Your task to perform on an android device: open app "McDonald's" Image 0: 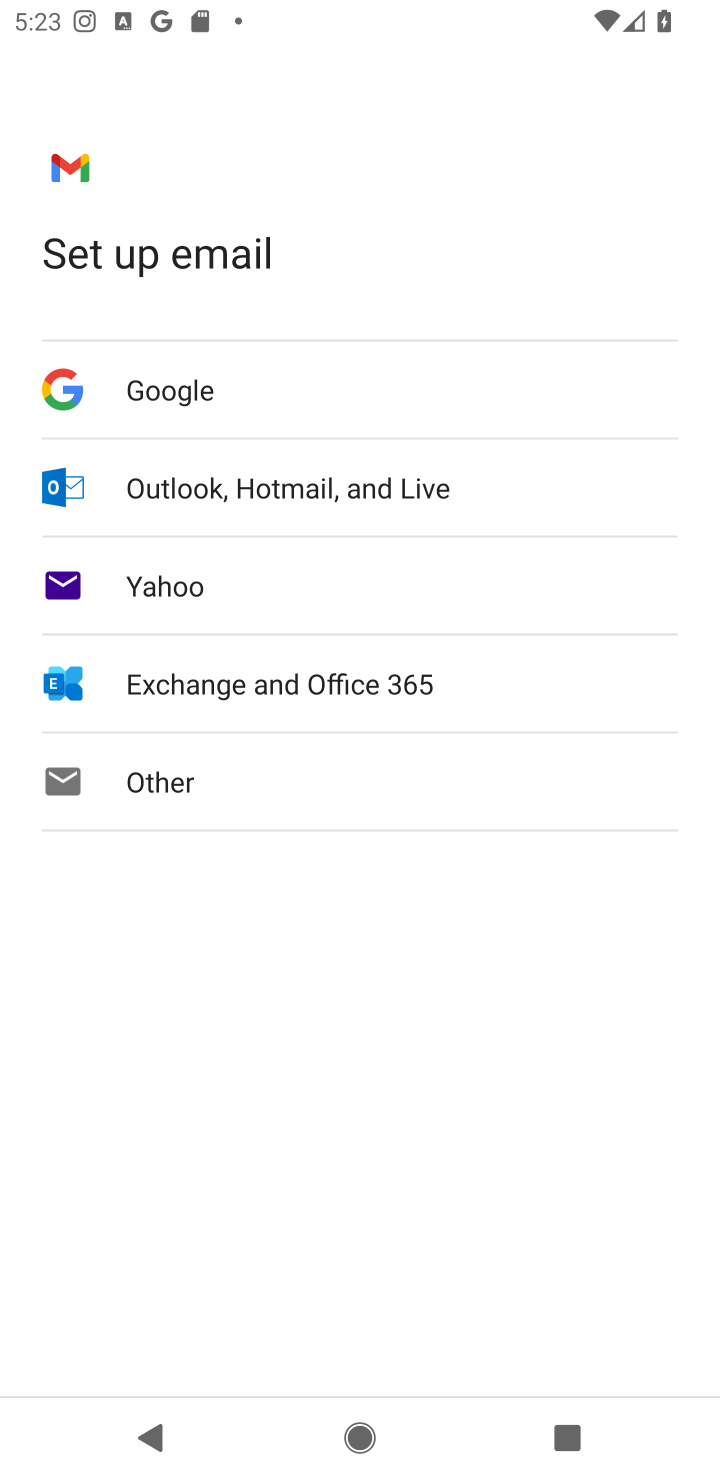
Step 0: press home button
Your task to perform on an android device: open app "McDonald's" Image 1: 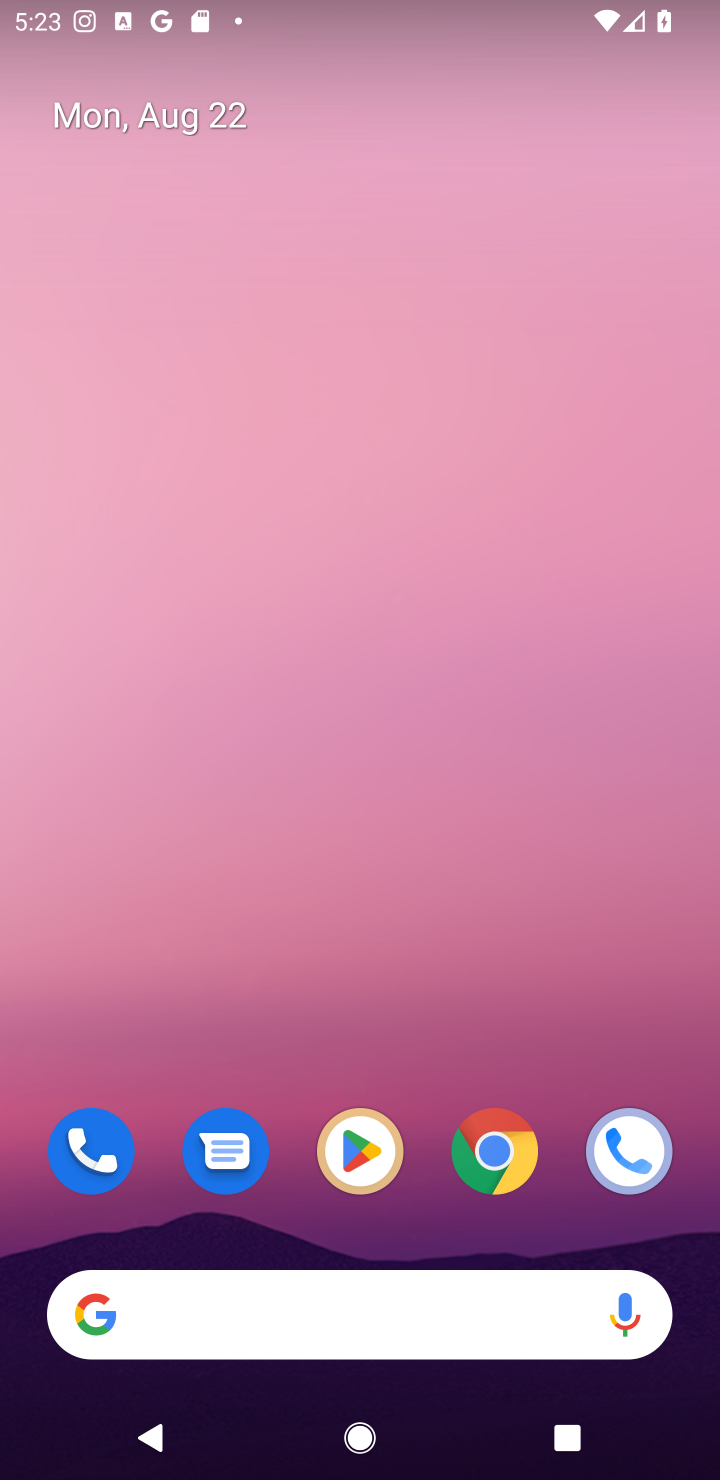
Step 1: click (356, 1152)
Your task to perform on an android device: open app "McDonald's" Image 2: 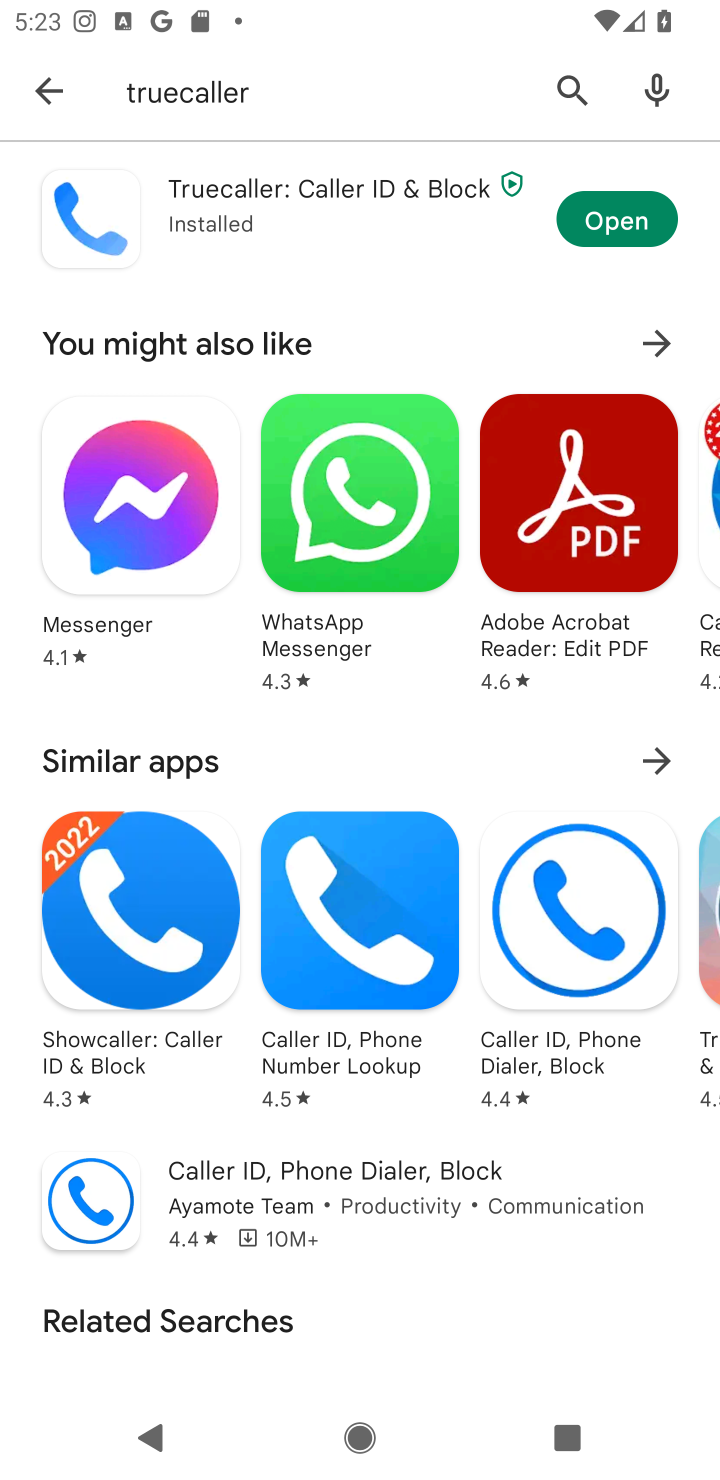
Step 2: click (576, 74)
Your task to perform on an android device: open app "McDonald's" Image 3: 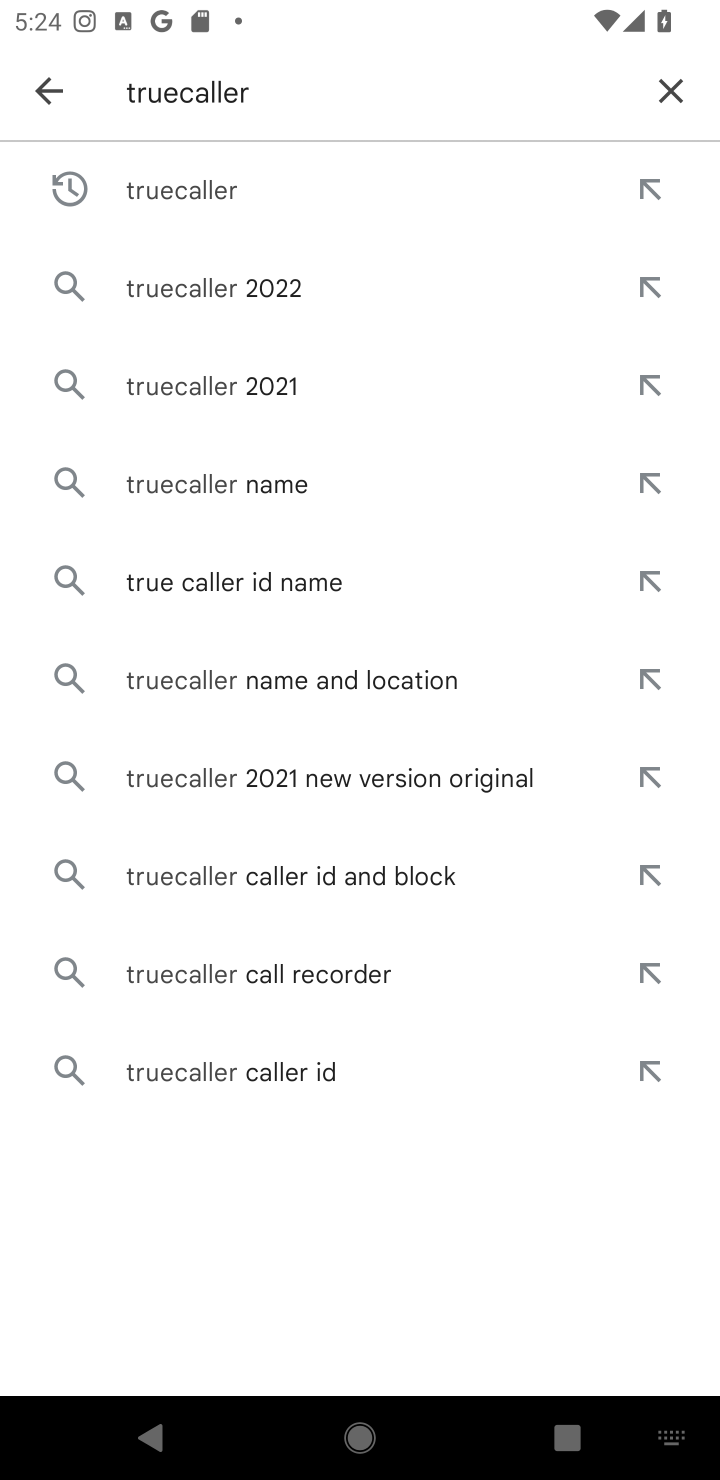
Step 3: click (672, 85)
Your task to perform on an android device: open app "McDonald's" Image 4: 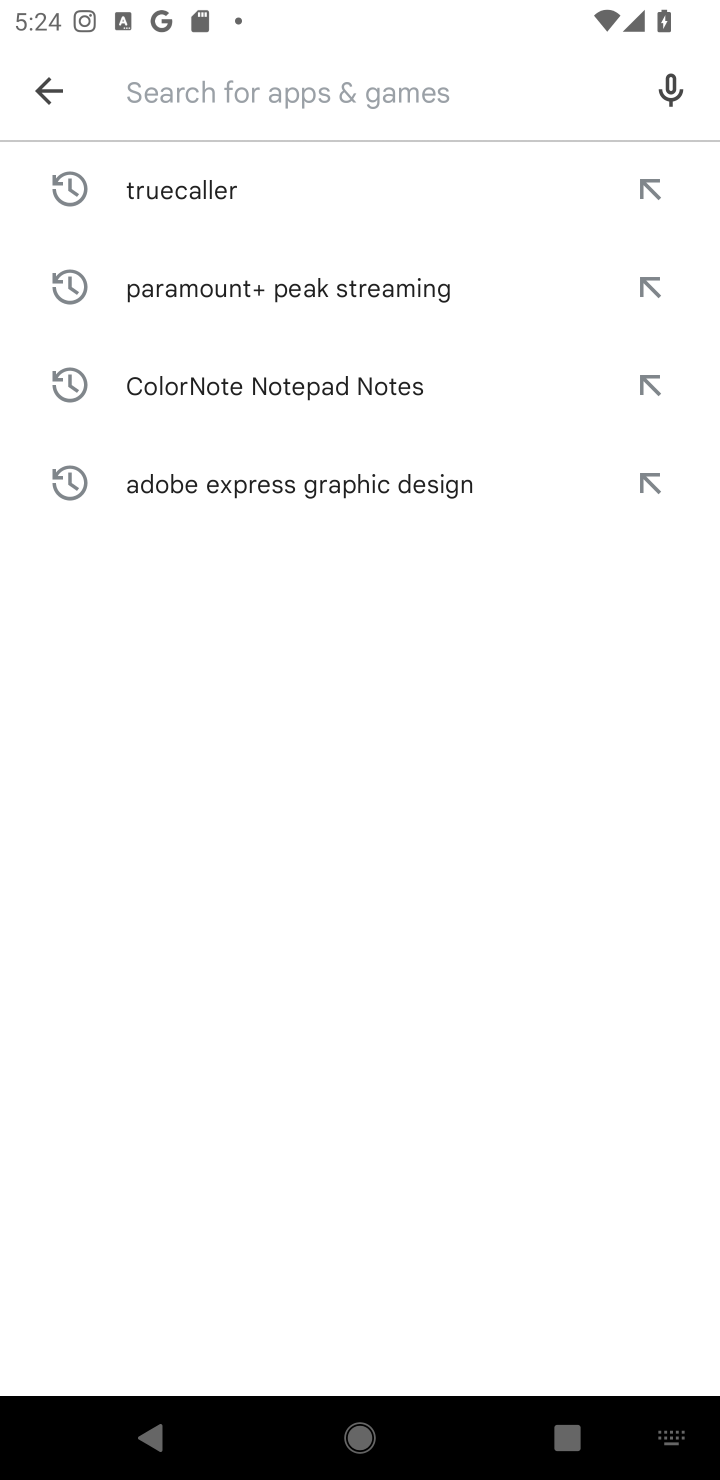
Step 4: type "McDonald's"
Your task to perform on an android device: open app "McDonald's" Image 5: 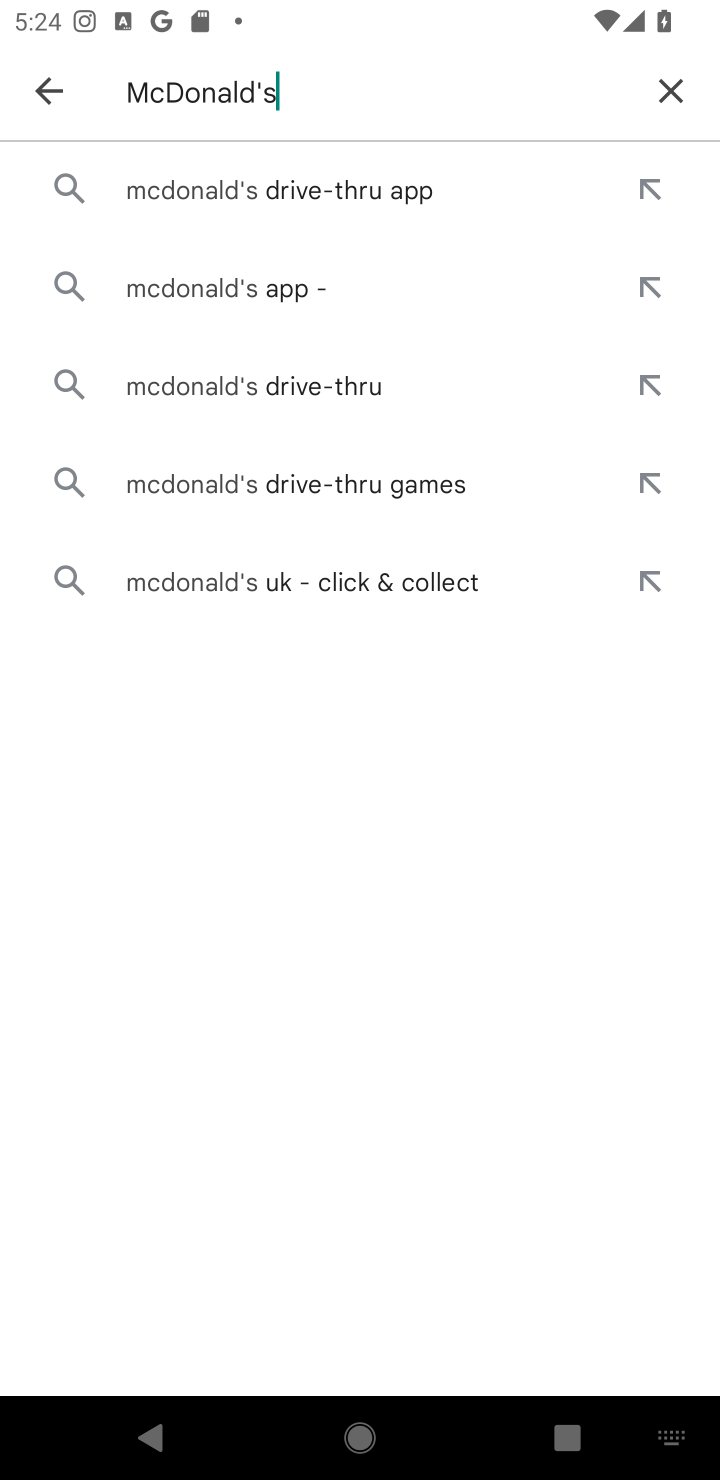
Step 5: click (224, 213)
Your task to perform on an android device: open app "McDonald's" Image 6: 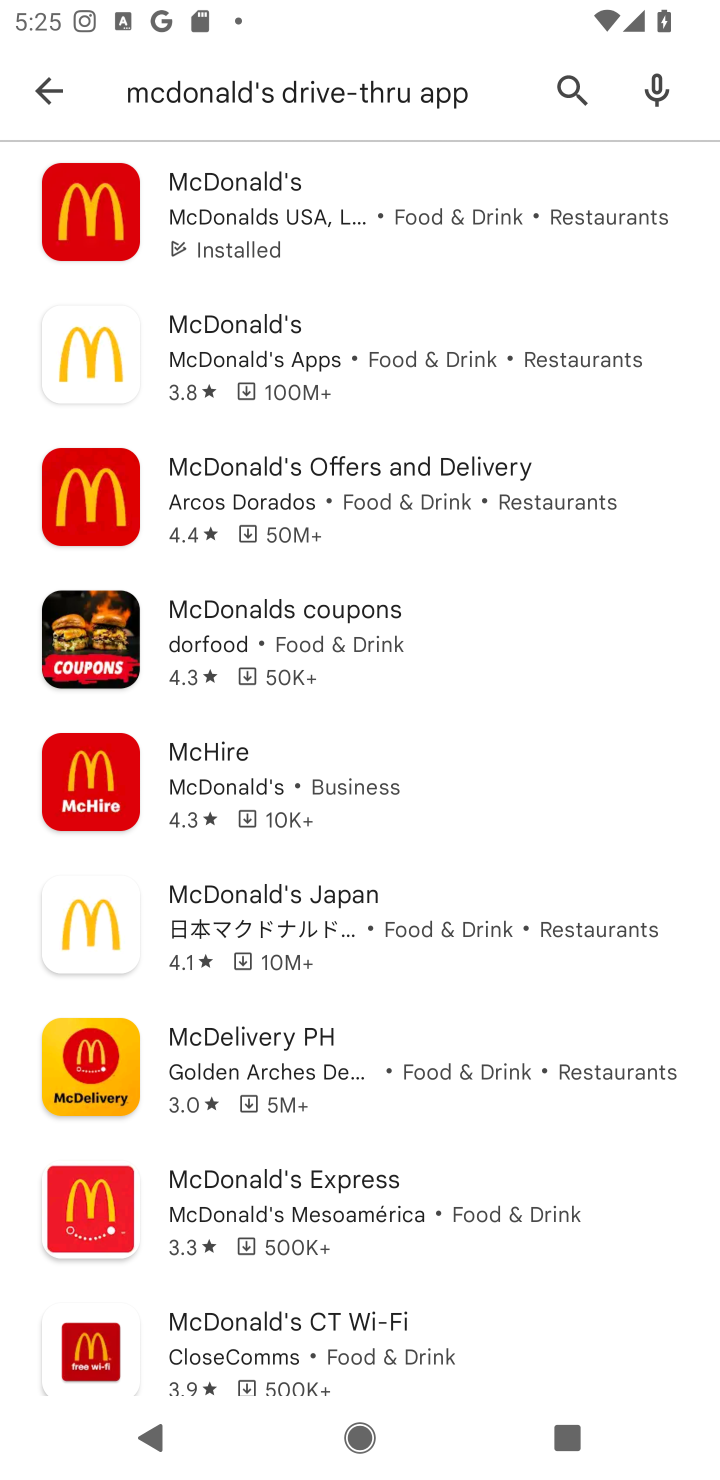
Step 6: click (250, 219)
Your task to perform on an android device: open app "McDonald's" Image 7: 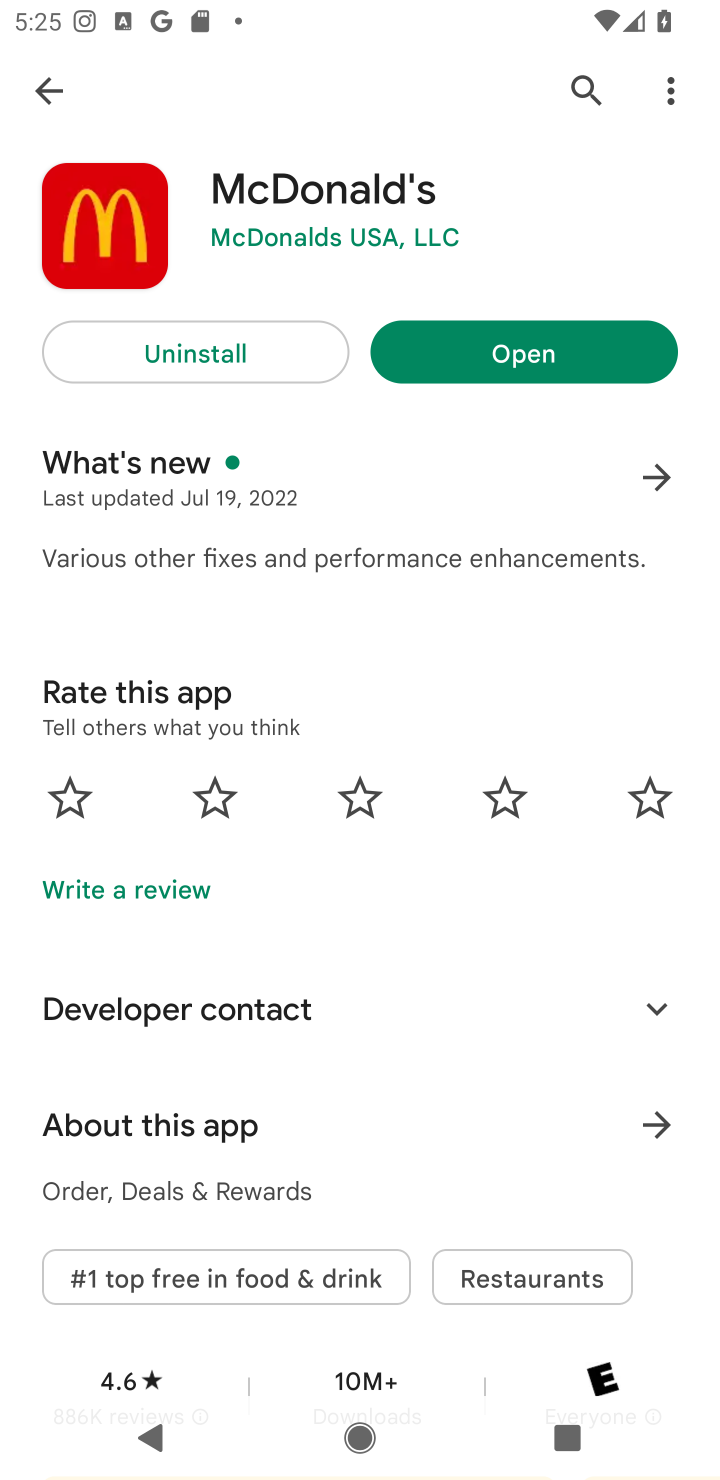
Step 7: click (551, 357)
Your task to perform on an android device: open app "McDonald's" Image 8: 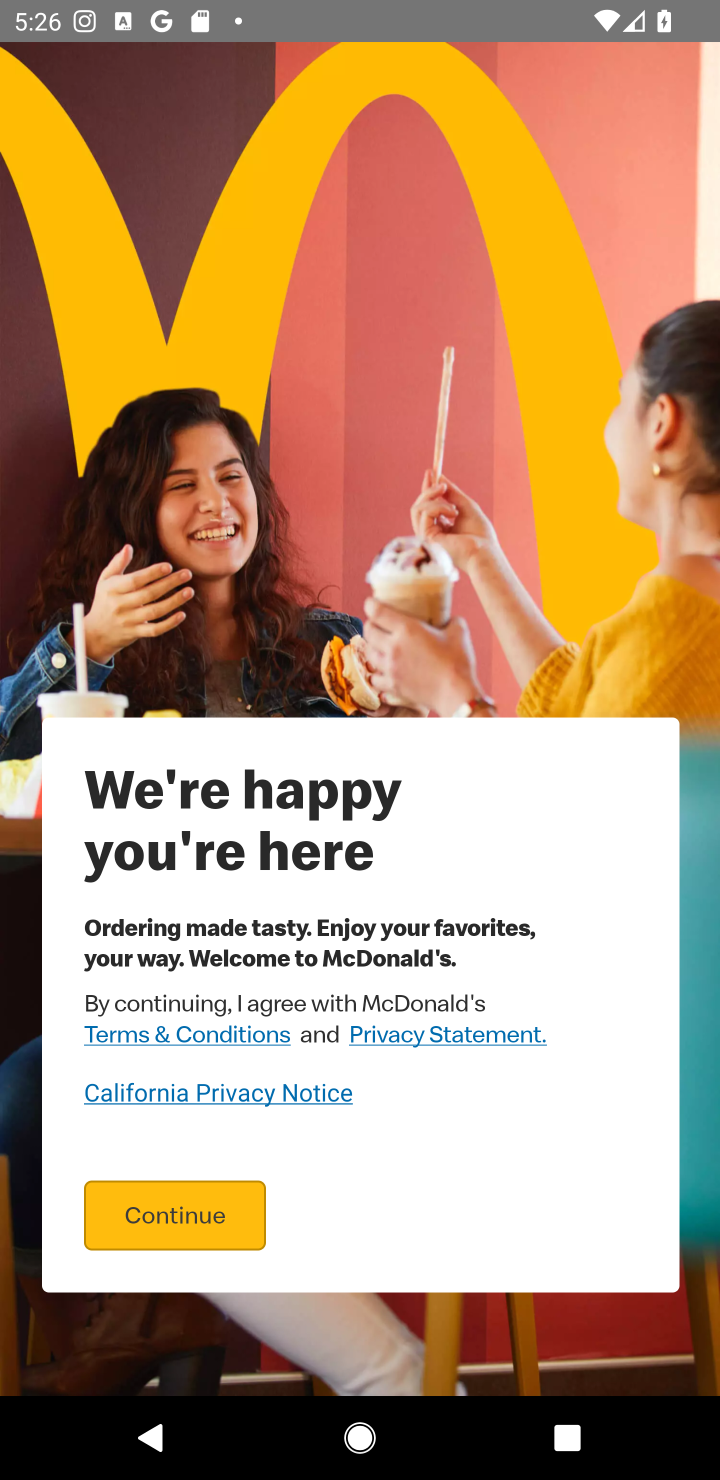
Step 8: task complete